Your task to perform on an android device: turn on wifi Image 0: 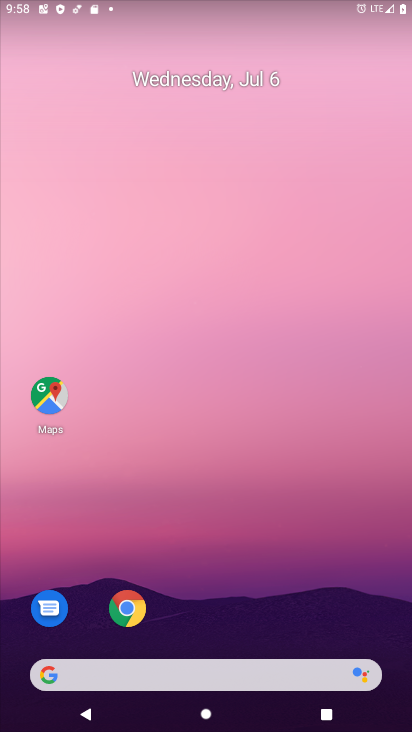
Step 0: drag from (396, 631) to (232, 147)
Your task to perform on an android device: turn on wifi Image 1: 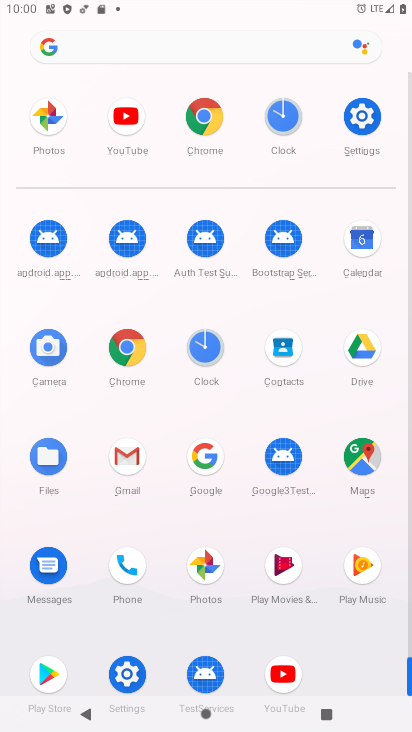
Step 1: drag from (192, 3) to (142, 648)
Your task to perform on an android device: turn on wifi Image 2: 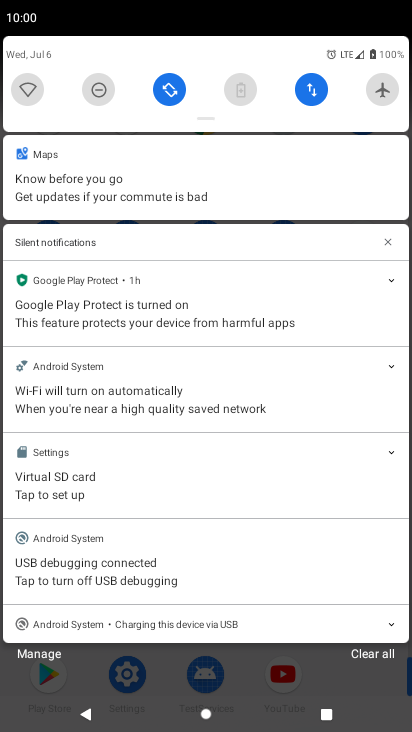
Step 2: click (26, 89)
Your task to perform on an android device: turn on wifi Image 3: 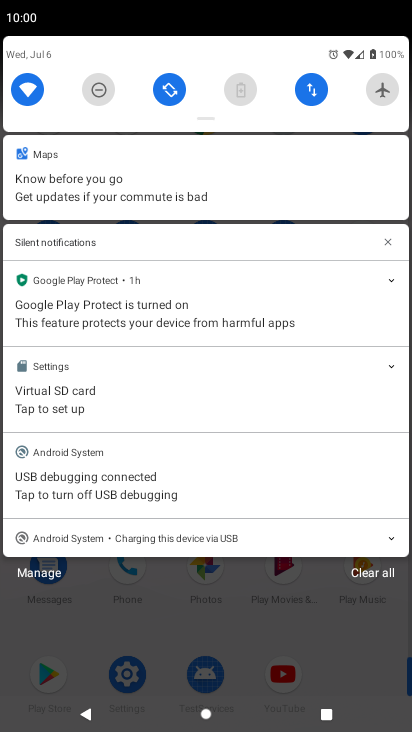
Step 3: task complete